Your task to perform on an android device: Go to CNN.com Image 0: 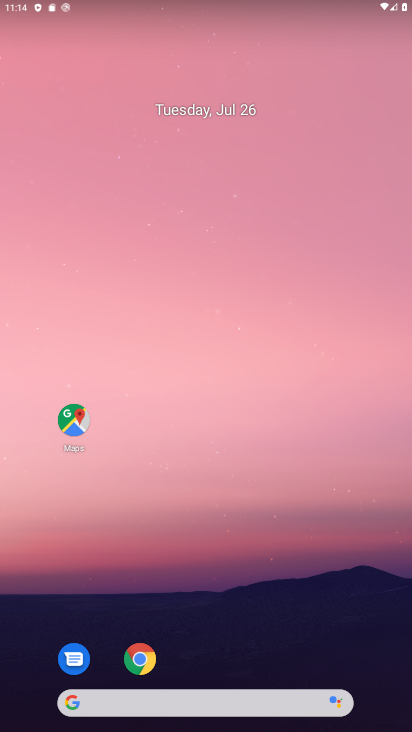
Step 0: click (220, 702)
Your task to perform on an android device: Go to CNN.com Image 1: 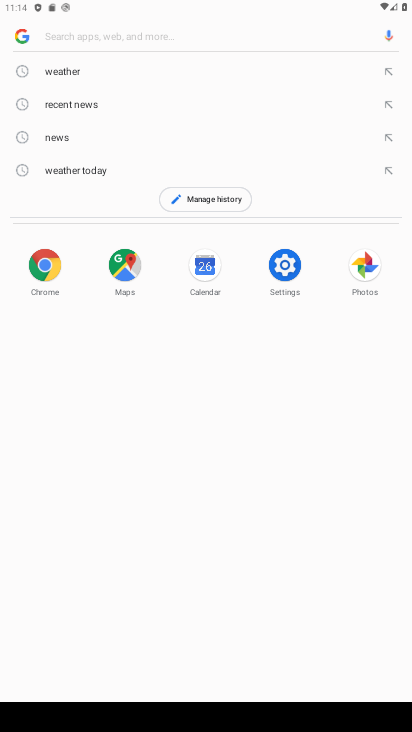
Step 1: click (118, 37)
Your task to perform on an android device: Go to CNN.com Image 2: 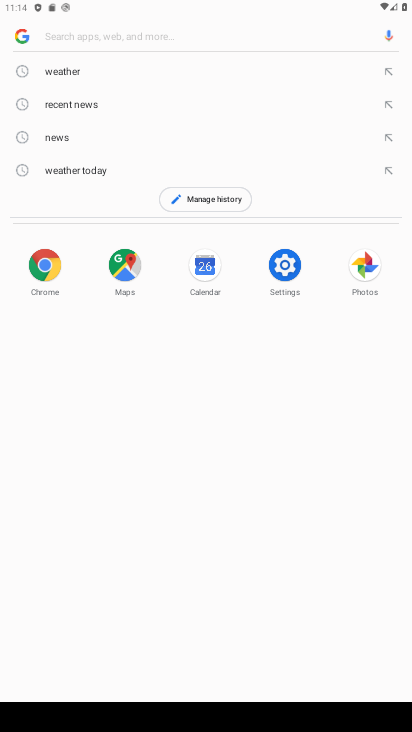
Step 2: type "CNN.com"
Your task to perform on an android device: Go to CNN.com Image 3: 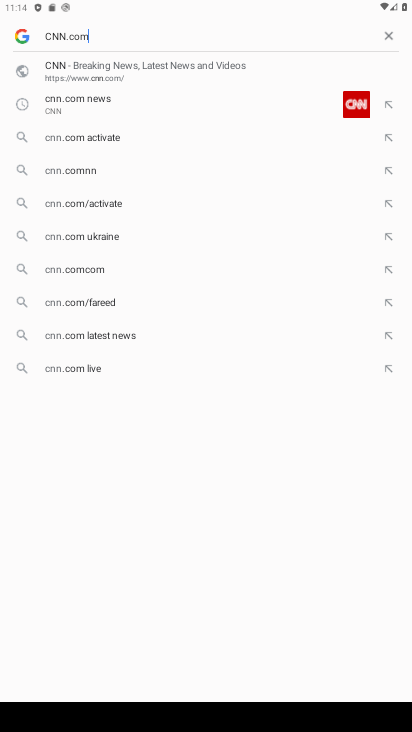
Step 3: type ""
Your task to perform on an android device: Go to CNN.com Image 4: 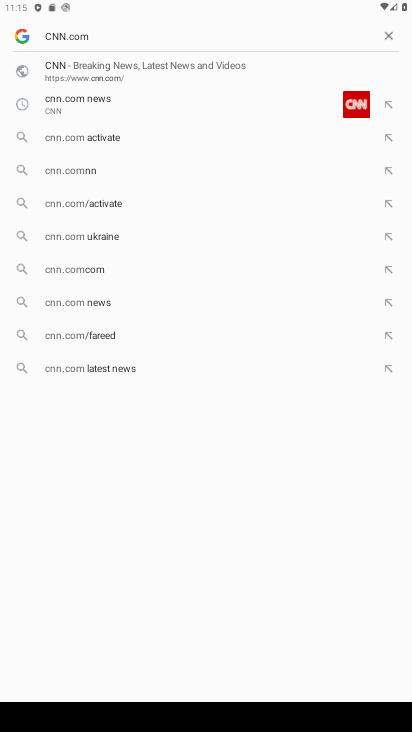
Step 4: click (75, 70)
Your task to perform on an android device: Go to CNN.com Image 5: 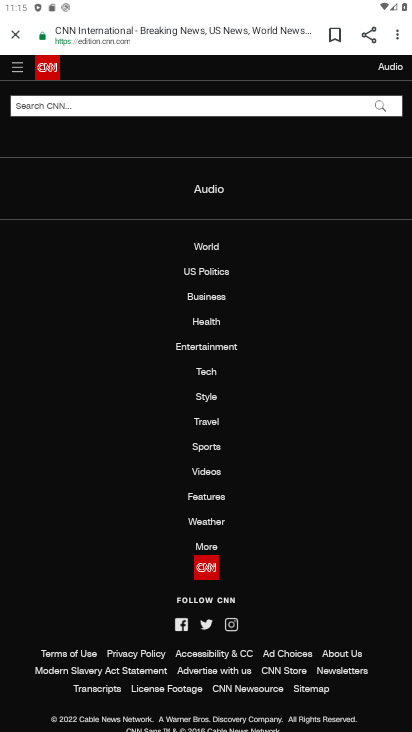
Step 5: task complete